Your task to perform on an android device: toggle data saver in the chrome app Image 0: 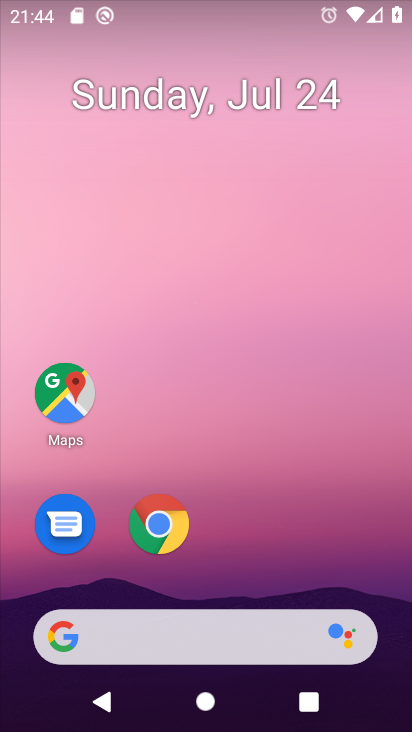
Step 0: click (163, 522)
Your task to perform on an android device: toggle data saver in the chrome app Image 1: 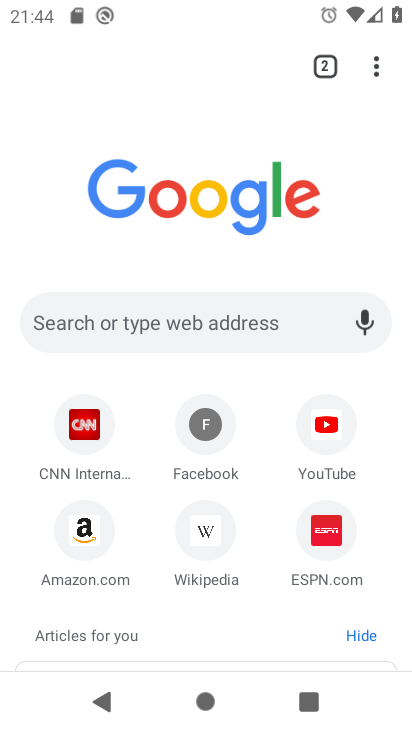
Step 1: click (373, 72)
Your task to perform on an android device: toggle data saver in the chrome app Image 2: 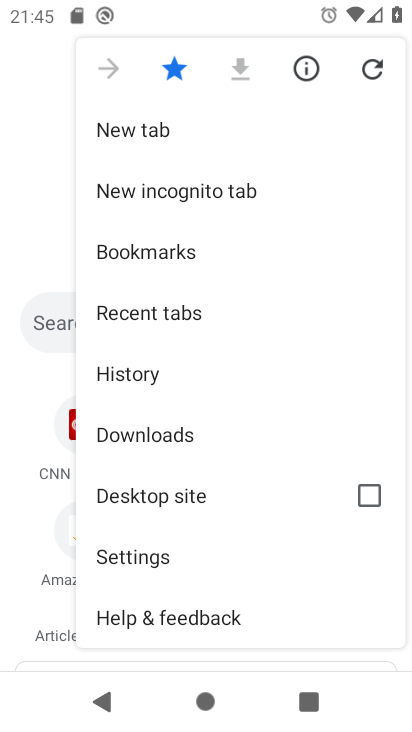
Step 2: click (151, 557)
Your task to perform on an android device: toggle data saver in the chrome app Image 3: 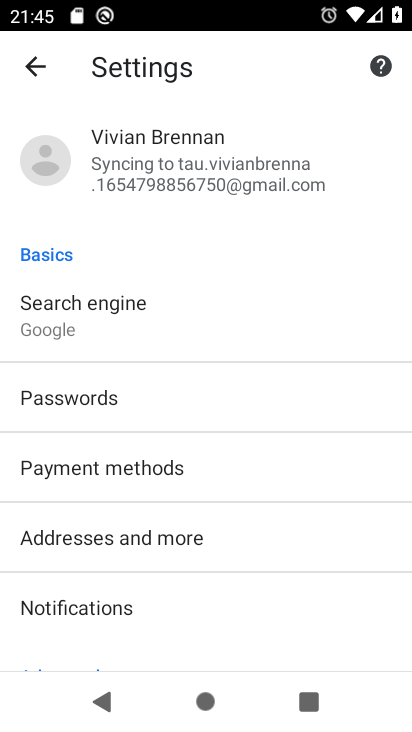
Step 3: drag from (225, 567) to (228, 268)
Your task to perform on an android device: toggle data saver in the chrome app Image 4: 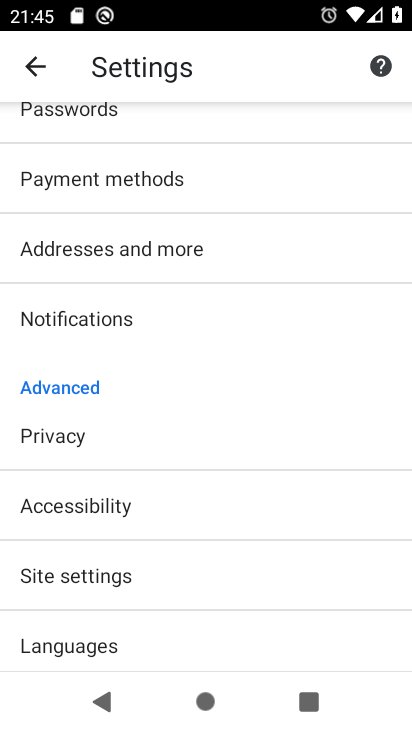
Step 4: drag from (223, 499) to (247, 222)
Your task to perform on an android device: toggle data saver in the chrome app Image 5: 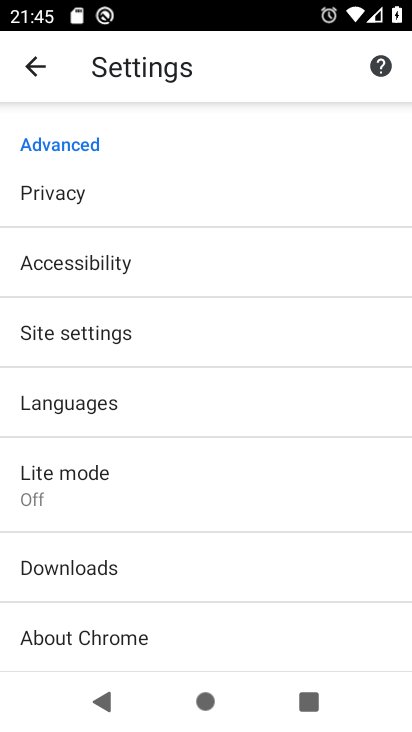
Step 5: click (174, 472)
Your task to perform on an android device: toggle data saver in the chrome app Image 6: 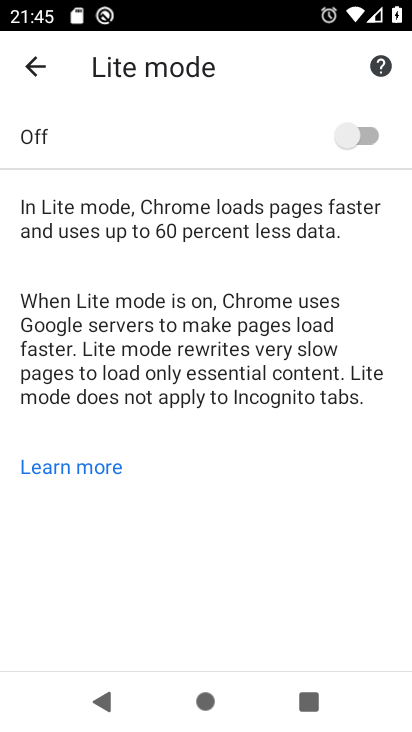
Step 6: click (364, 131)
Your task to perform on an android device: toggle data saver in the chrome app Image 7: 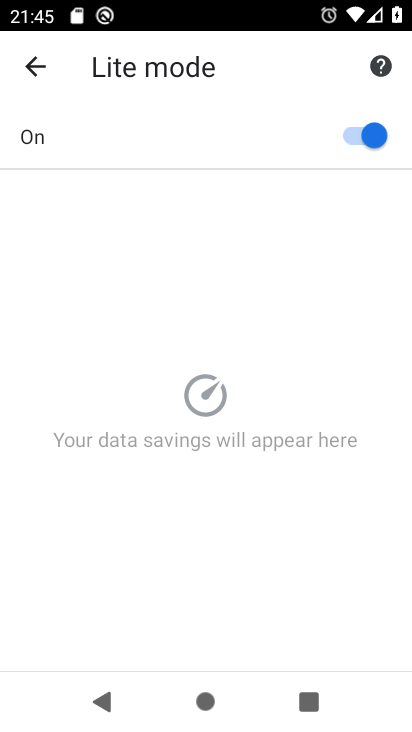
Step 7: task complete